Your task to perform on an android device: allow cookies in the chrome app Image 0: 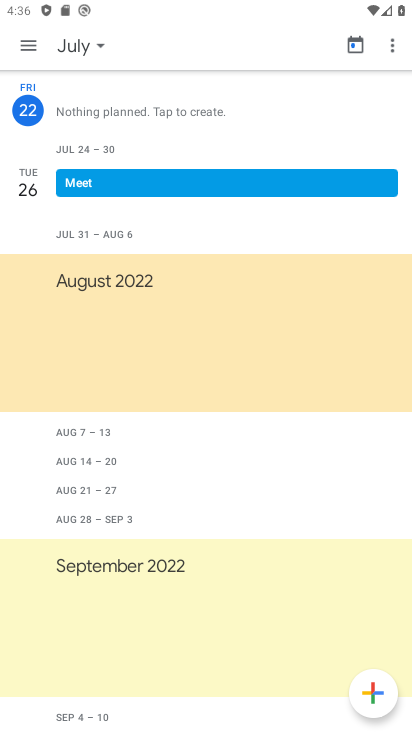
Step 0: press home button
Your task to perform on an android device: allow cookies in the chrome app Image 1: 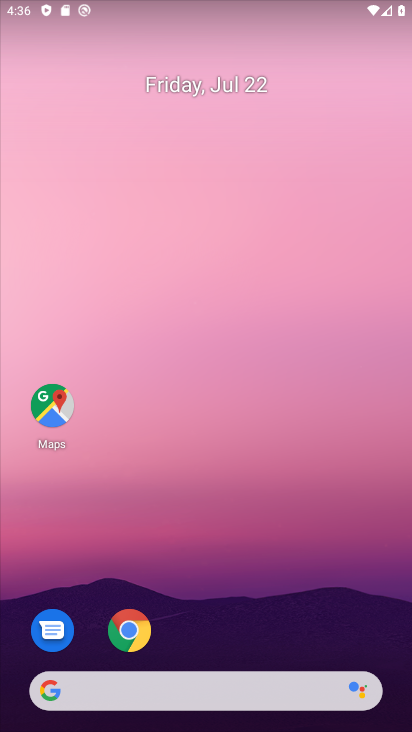
Step 1: click (130, 640)
Your task to perform on an android device: allow cookies in the chrome app Image 2: 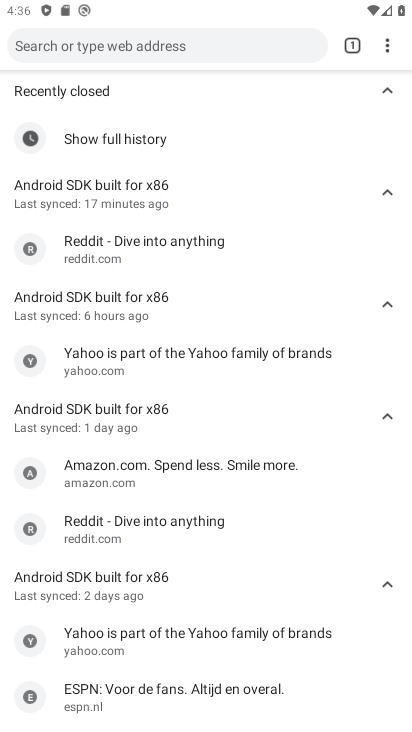
Step 2: click (392, 39)
Your task to perform on an android device: allow cookies in the chrome app Image 3: 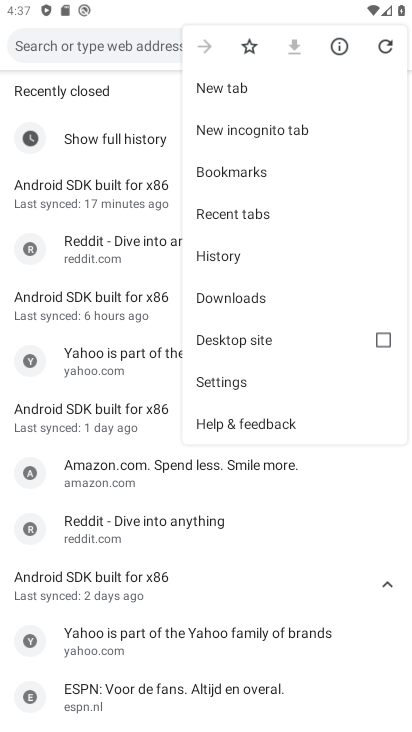
Step 3: click (224, 377)
Your task to perform on an android device: allow cookies in the chrome app Image 4: 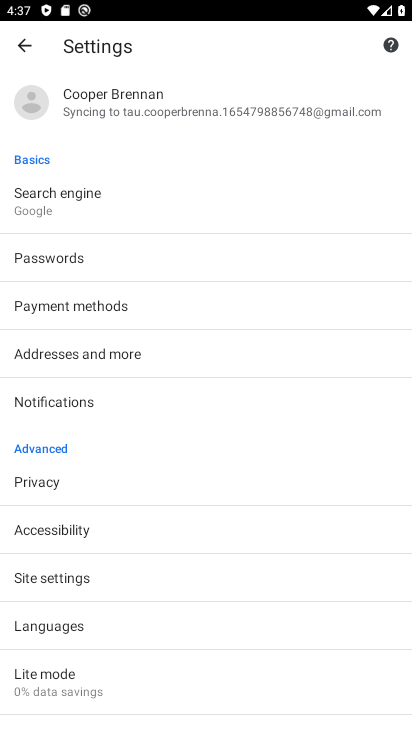
Step 4: drag from (120, 643) to (121, 385)
Your task to perform on an android device: allow cookies in the chrome app Image 5: 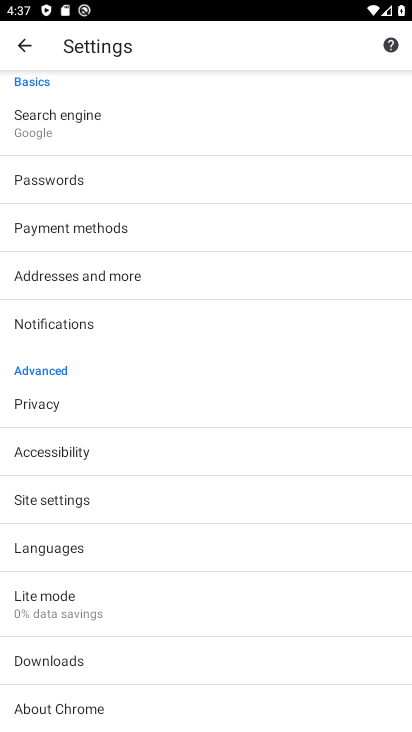
Step 5: drag from (84, 605) to (84, 288)
Your task to perform on an android device: allow cookies in the chrome app Image 6: 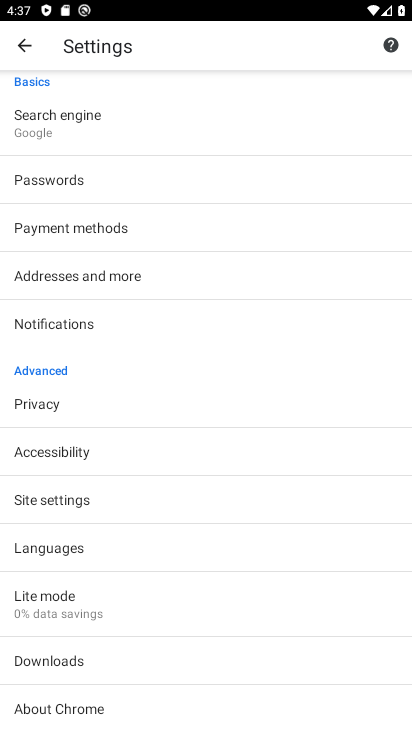
Step 6: drag from (164, 615) to (165, 411)
Your task to perform on an android device: allow cookies in the chrome app Image 7: 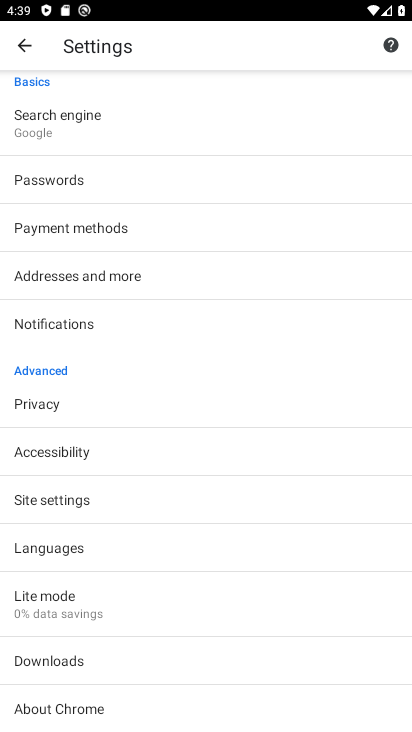
Step 7: click (60, 504)
Your task to perform on an android device: allow cookies in the chrome app Image 8: 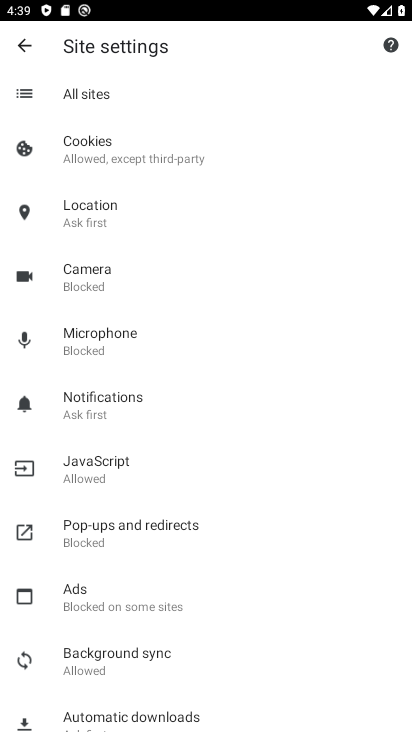
Step 8: click (151, 163)
Your task to perform on an android device: allow cookies in the chrome app Image 9: 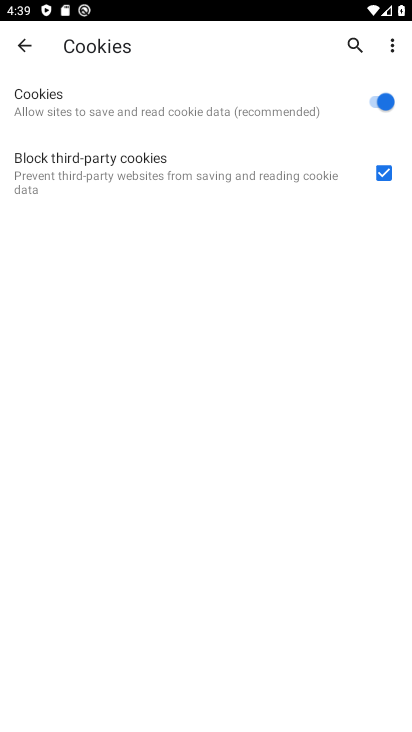
Step 9: task complete